Your task to perform on an android device: Play the last video I watched on Youtube Image 0: 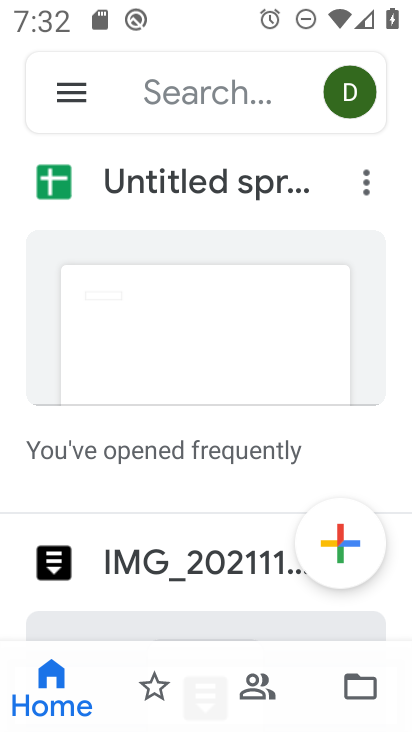
Step 0: press home button
Your task to perform on an android device: Play the last video I watched on Youtube Image 1: 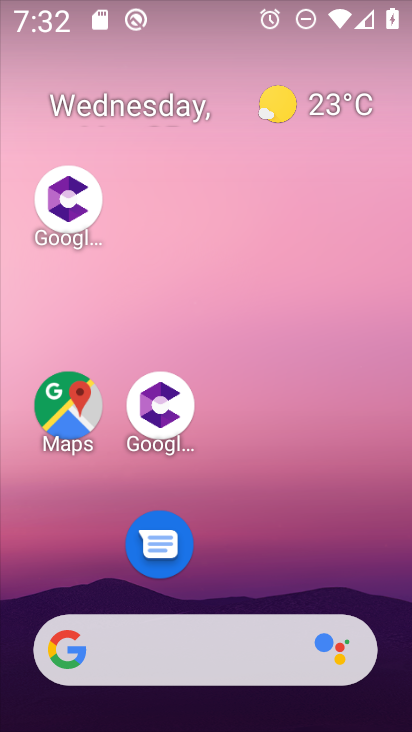
Step 1: drag from (265, 533) to (250, 123)
Your task to perform on an android device: Play the last video I watched on Youtube Image 2: 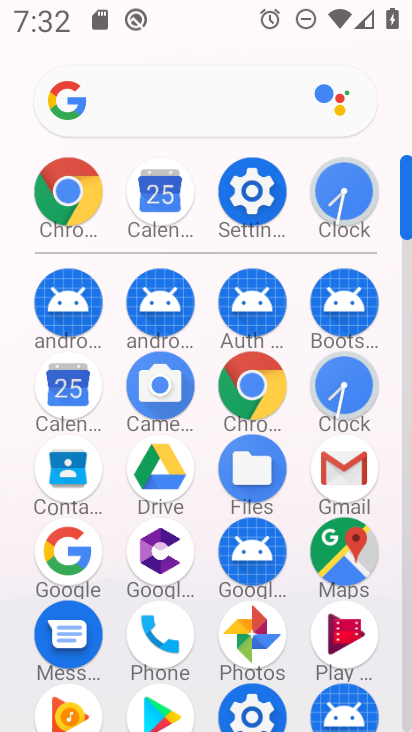
Step 2: drag from (210, 638) to (198, 125)
Your task to perform on an android device: Play the last video I watched on Youtube Image 3: 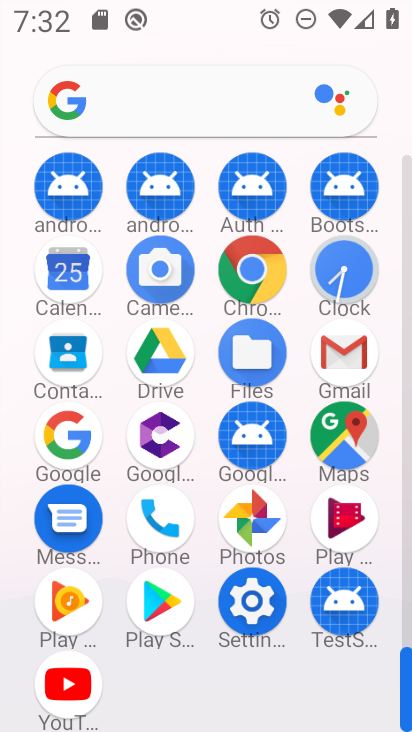
Step 3: click (78, 680)
Your task to perform on an android device: Play the last video I watched on Youtube Image 4: 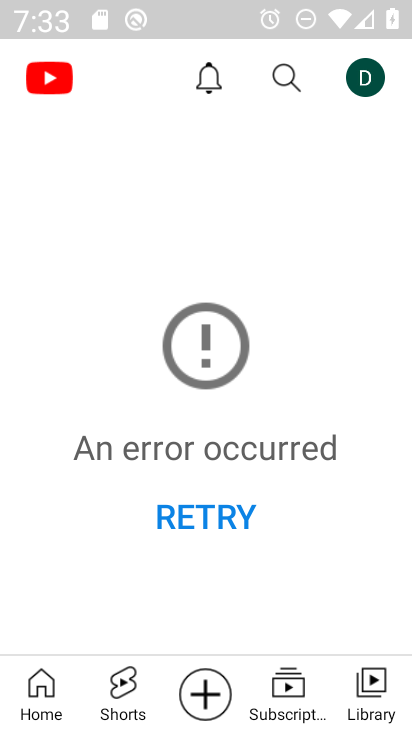
Step 4: click (373, 693)
Your task to perform on an android device: Play the last video I watched on Youtube Image 5: 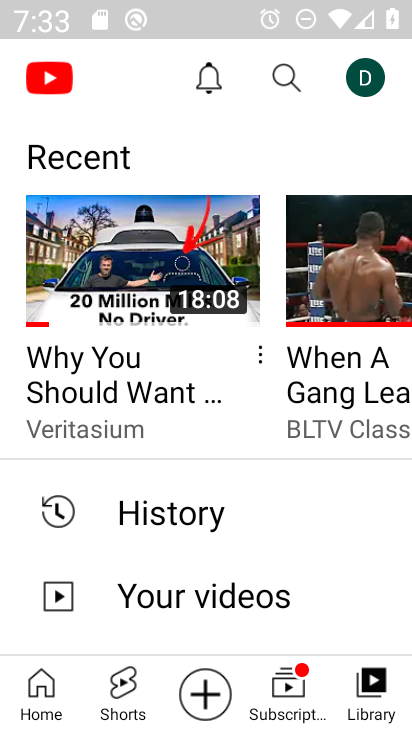
Step 5: click (124, 240)
Your task to perform on an android device: Play the last video I watched on Youtube Image 6: 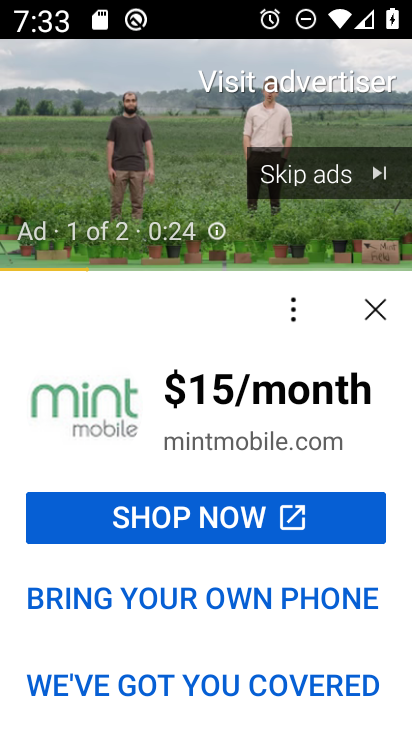
Step 6: task complete